Your task to perform on an android device: open a bookmark in the chrome app Image 0: 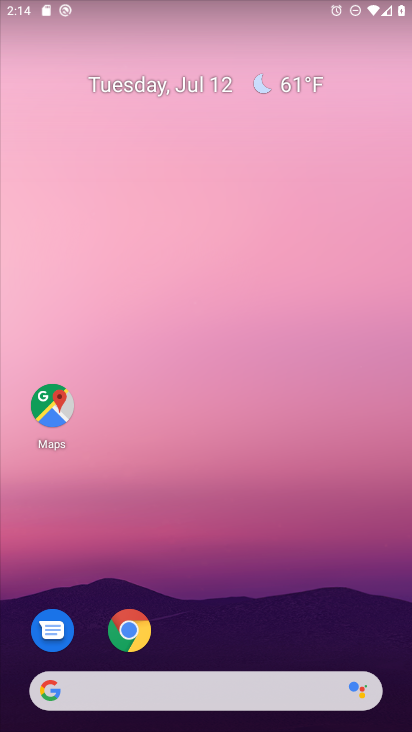
Step 0: click (120, 625)
Your task to perform on an android device: open a bookmark in the chrome app Image 1: 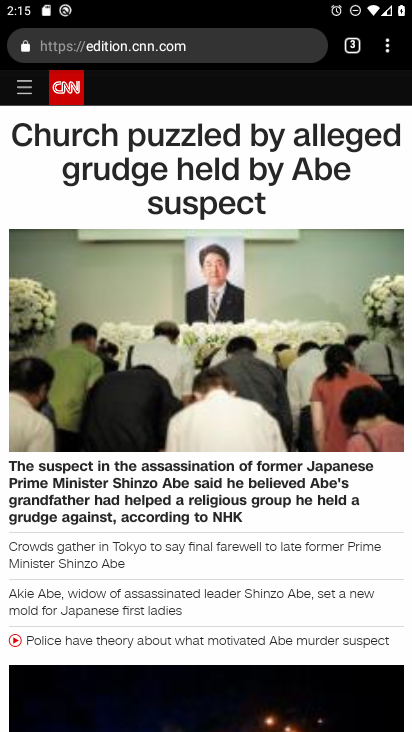
Step 1: click (385, 46)
Your task to perform on an android device: open a bookmark in the chrome app Image 2: 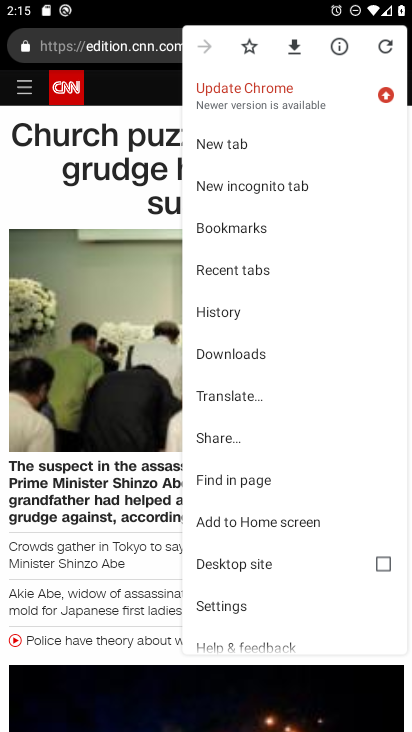
Step 2: click (213, 222)
Your task to perform on an android device: open a bookmark in the chrome app Image 3: 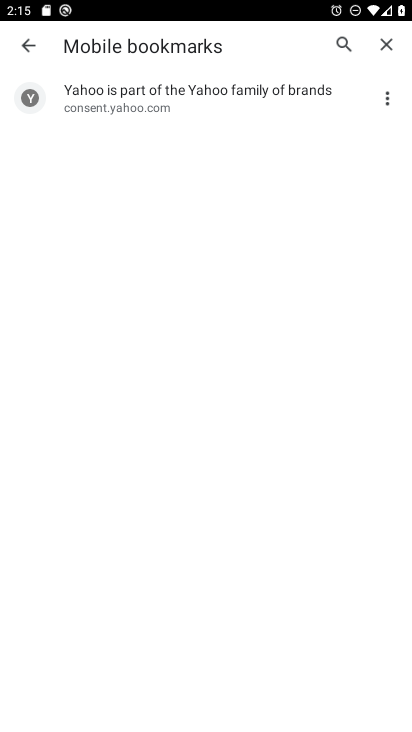
Step 3: task complete